Your task to perform on an android device: Go to eBay Image 0: 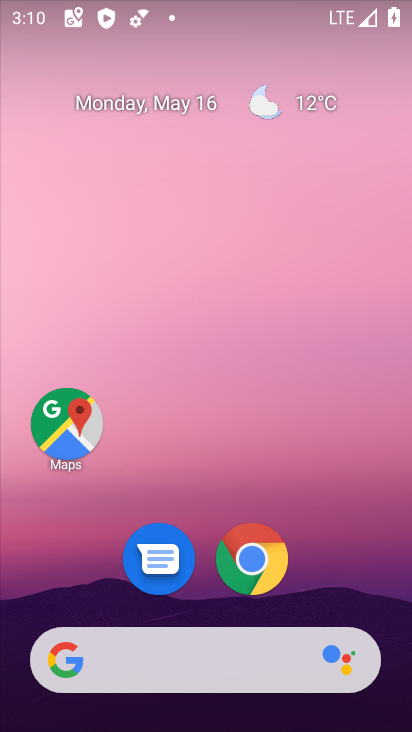
Step 0: click (243, 574)
Your task to perform on an android device: Go to eBay Image 1: 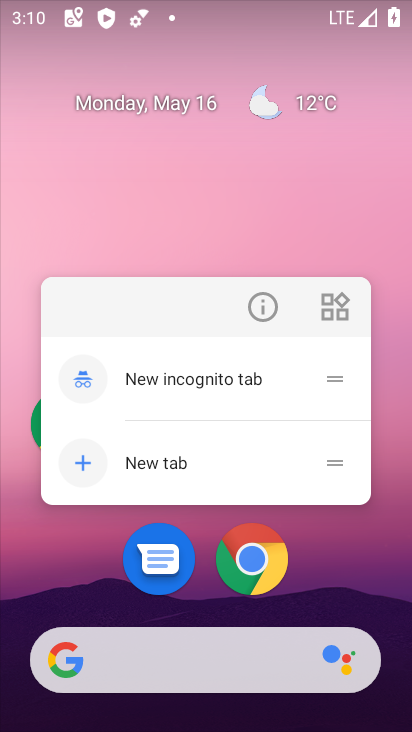
Step 1: click (254, 561)
Your task to perform on an android device: Go to eBay Image 2: 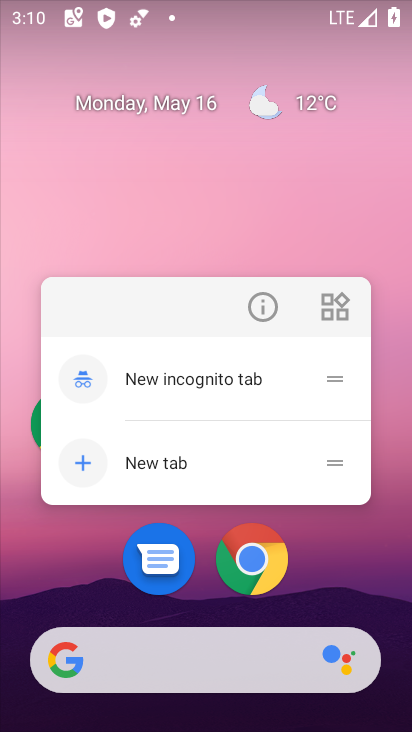
Step 2: click (265, 554)
Your task to perform on an android device: Go to eBay Image 3: 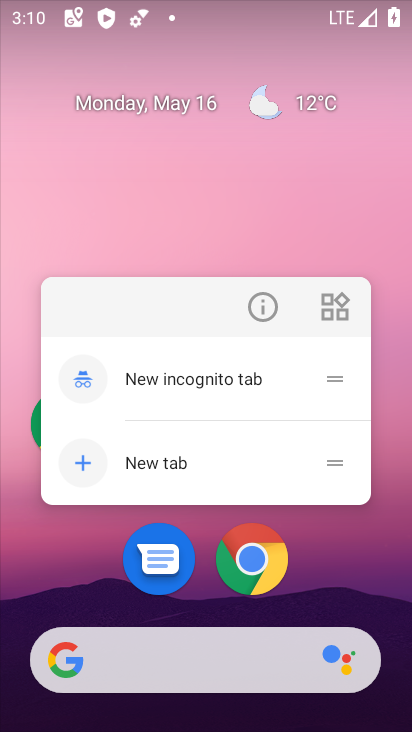
Step 3: click (262, 555)
Your task to perform on an android device: Go to eBay Image 4: 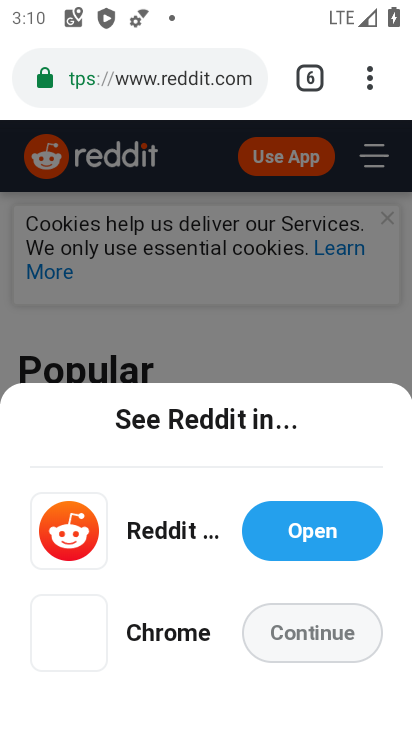
Step 4: click (290, 73)
Your task to perform on an android device: Go to eBay Image 5: 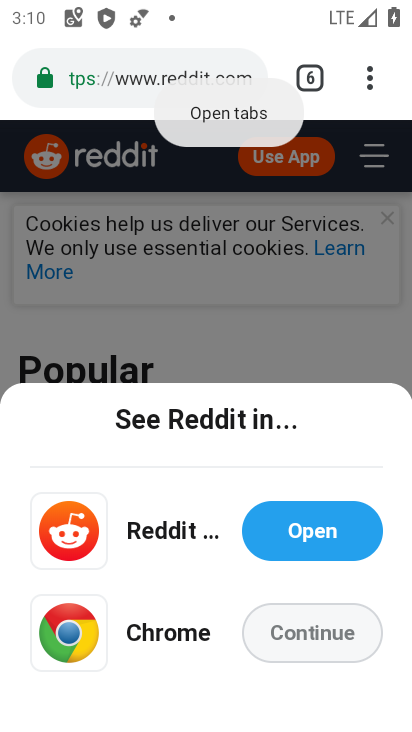
Step 5: click (314, 72)
Your task to perform on an android device: Go to eBay Image 6: 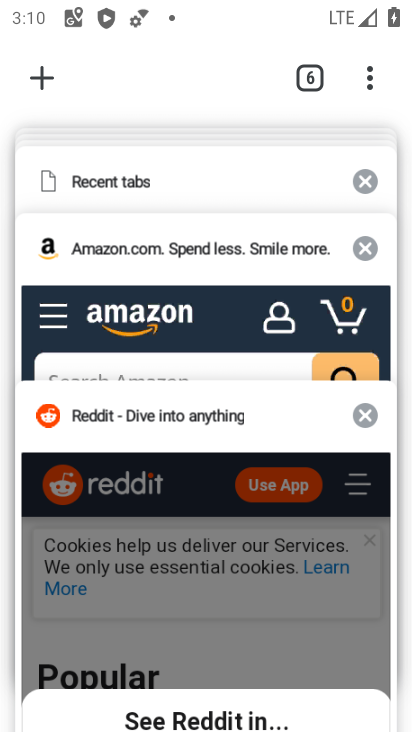
Step 6: drag from (162, 205) to (165, 676)
Your task to perform on an android device: Go to eBay Image 7: 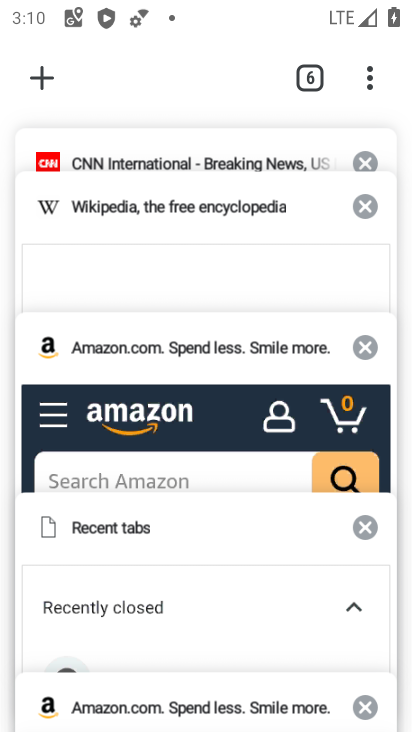
Step 7: drag from (178, 231) to (158, 726)
Your task to perform on an android device: Go to eBay Image 8: 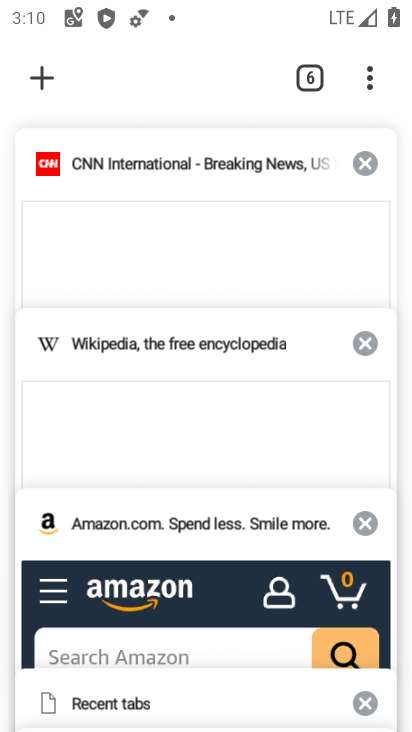
Step 8: click (30, 63)
Your task to perform on an android device: Go to eBay Image 9: 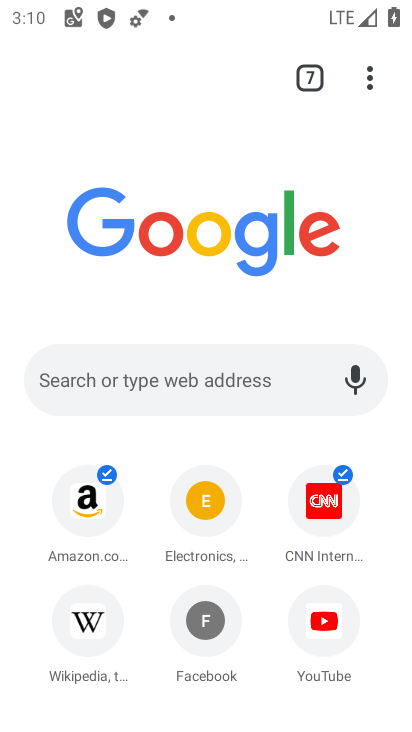
Step 9: click (113, 380)
Your task to perform on an android device: Go to eBay Image 10: 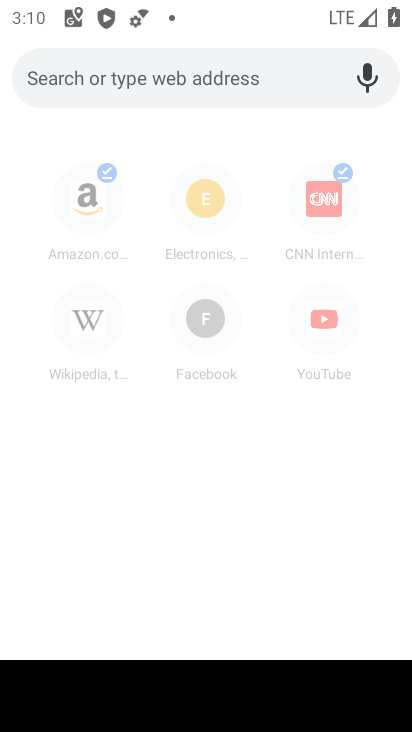
Step 10: type "ebay"
Your task to perform on an android device: Go to eBay Image 11: 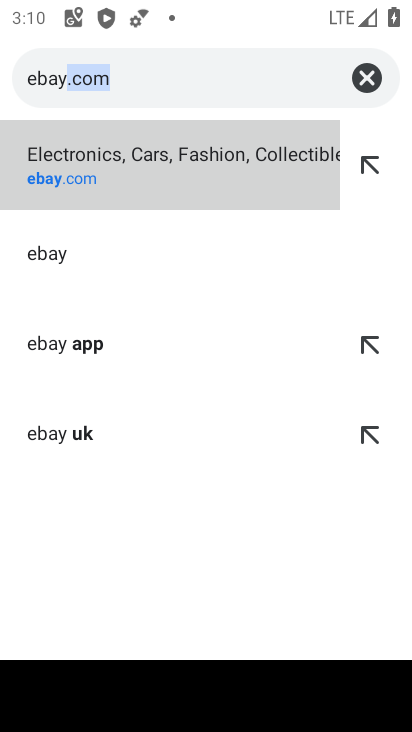
Step 11: click (165, 179)
Your task to perform on an android device: Go to eBay Image 12: 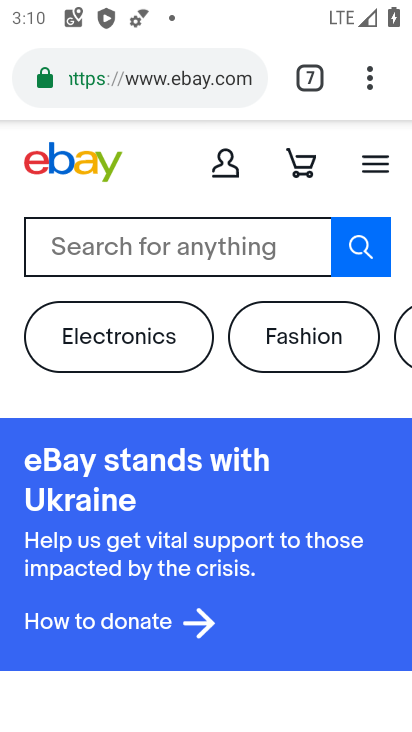
Step 12: task complete